Your task to perform on an android device: turn on notifications settings in the gmail app Image 0: 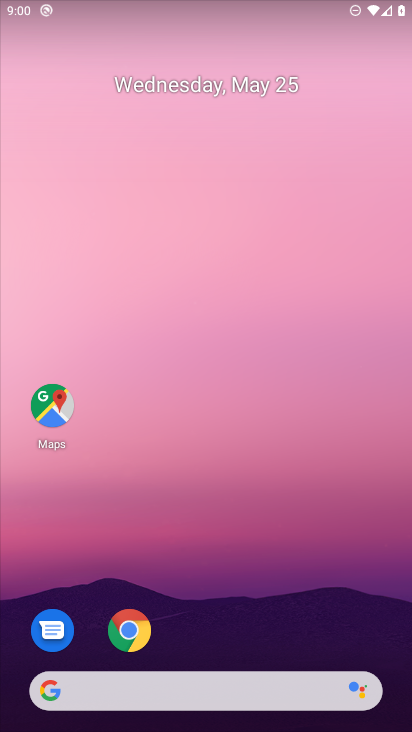
Step 0: drag from (245, 674) to (212, 200)
Your task to perform on an android device: turn on notifications settings in the gmail app Image 1: 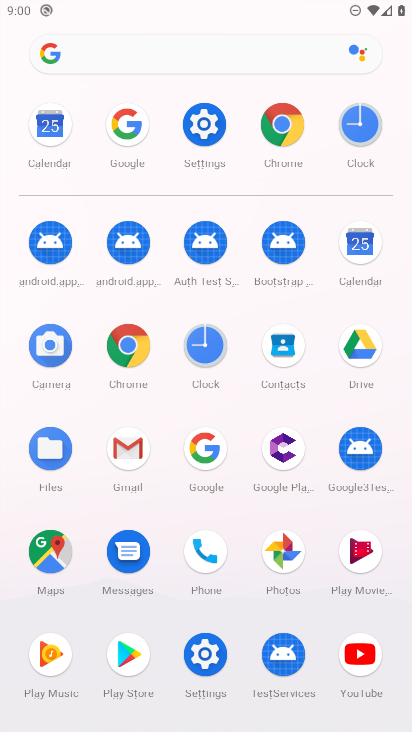
Step 1: click (132, 459)
Your task to perform on an android device: turn on notifications settings in the gmail app Image 2: 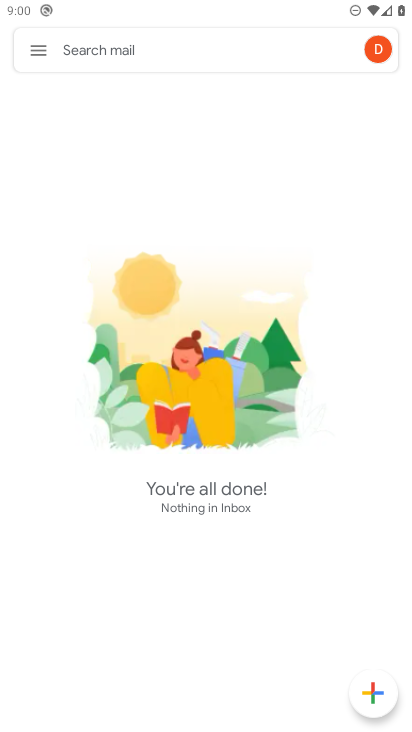
Step 2: click (43, 52)
Your task to perform on an android device: turn on notifications settings in the gmail app Image 3: 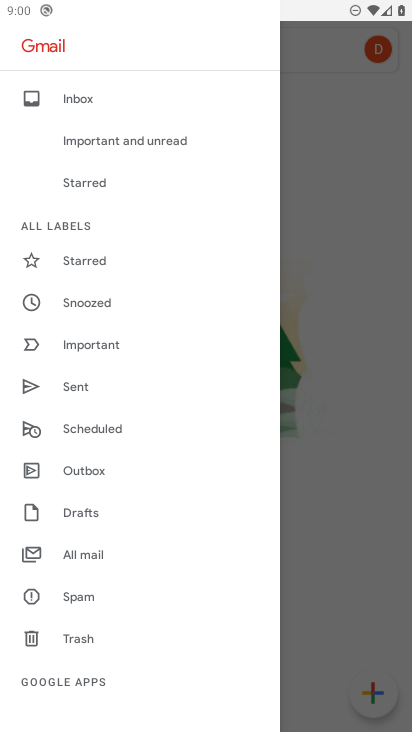
Step 3: drag from (87, 642) to (101, 261)
Your task to perform on an android device: turn on notifications settings in the gmail app Image 4: 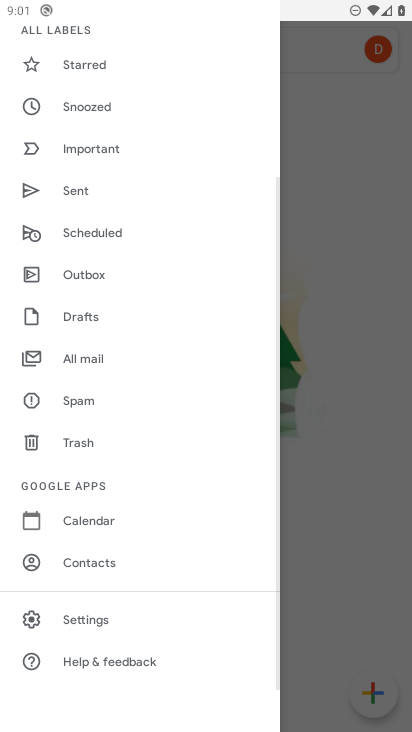
Step 4: click (103, 625)
Your task to perform on an android device: turn on notifications settings in the gmail app Image 5: 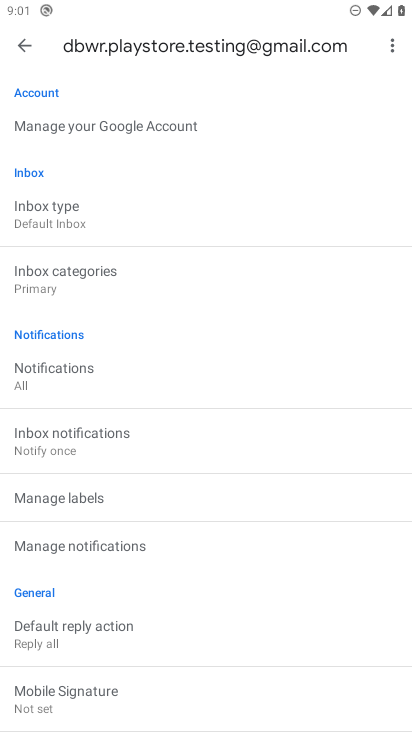
Step 5: click (18, 43)
Your task to perform on an android device: turn on notifications settings in the gmail app Image 6: 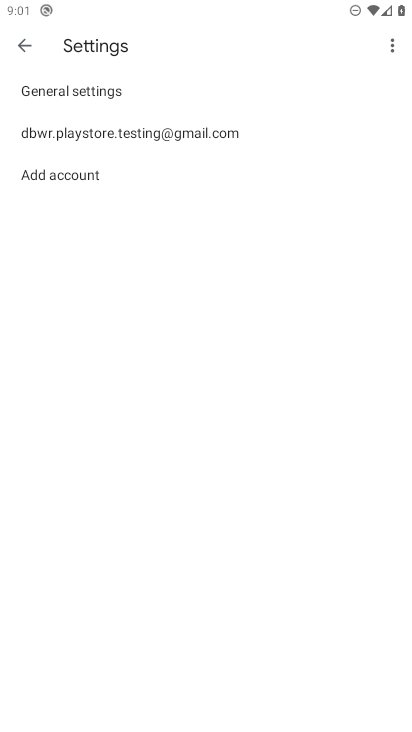
Step 6: click (66, 96)
Your task to perform on an android device: turn on notifications settings in the gmail app Image 7: 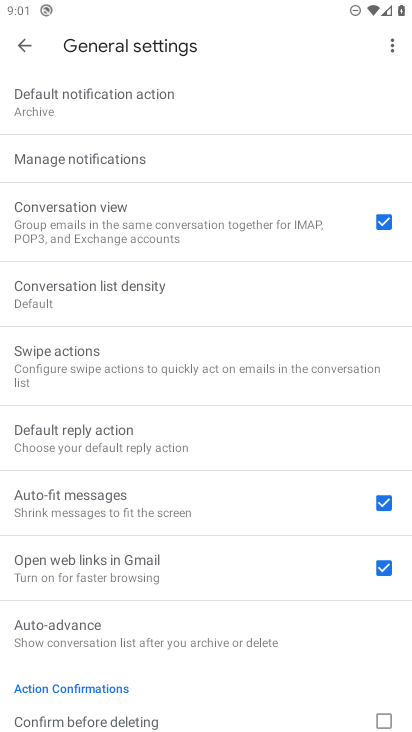
Step 7: click (130, 173)
Your task to perform on an android device: turn on notifications settings in the gmail app Image 8: 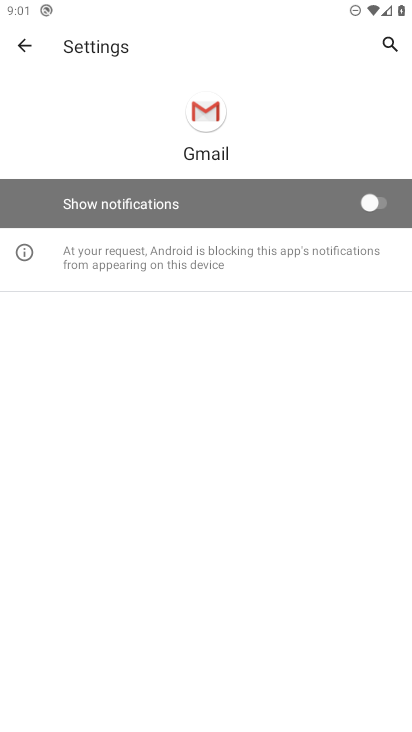
Step 8: click (380, 190)
Your task to perform on an android device: turn on notifications settings in the gmail app Image 9: 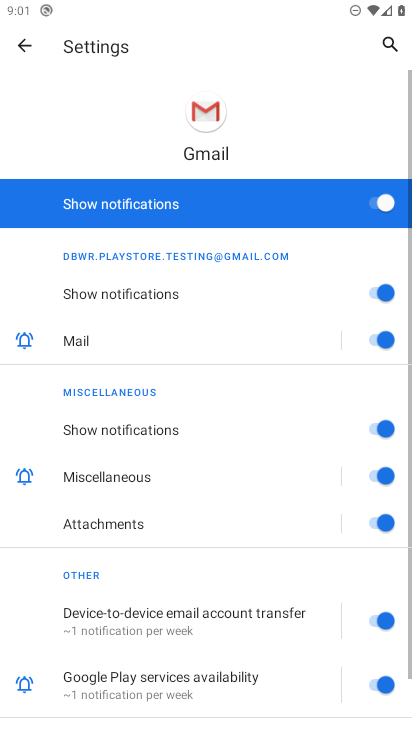
Step 9: task complete